Your task to perform on an android device: toggle wifi Image 0: 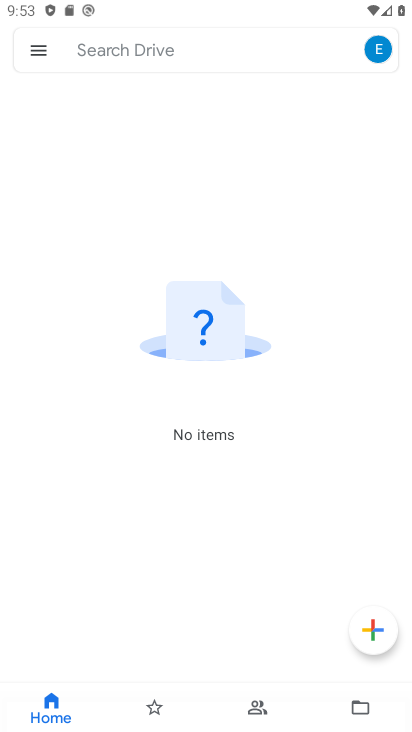
Step 0: press home button
Your task to perform on an android device: toggle wifi Image 1: 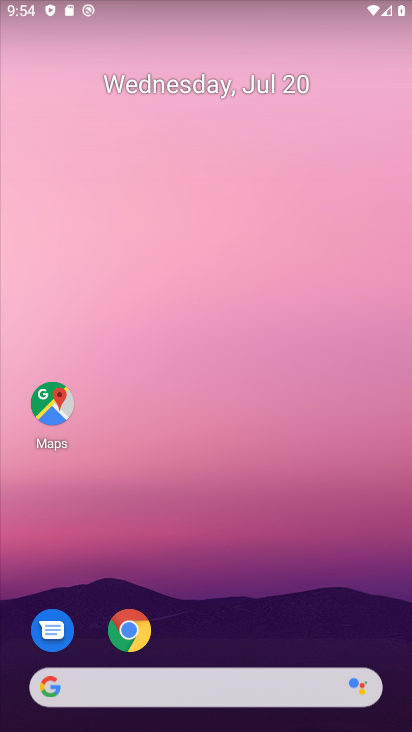
Step 1: drag from (277, 640) to (274, 127)
Your task to perform on an android device: toggle wifi Image 2: 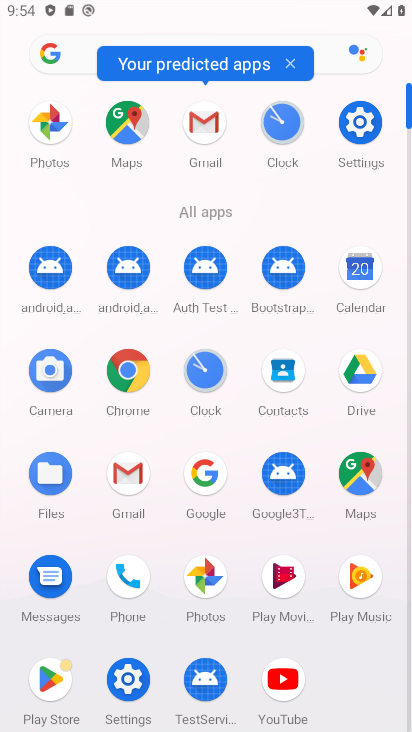
Step 2: click (360, 124)
Your task to perform on an android device: toggle wifi Image 3: 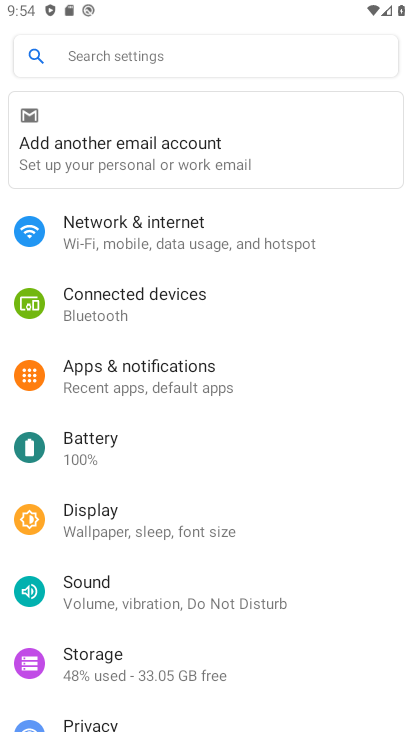
Step 3: click (235, 232)
Your task to perform on an android device: toggle wifi Image 4: 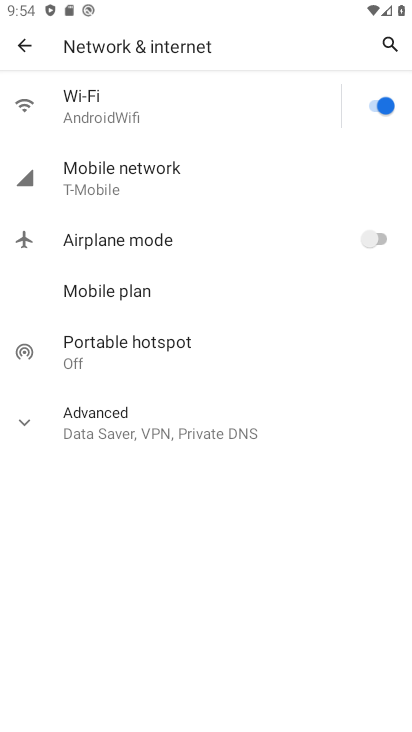
Step 4: click (160, 106)
Your task to perform on an android device: toggle wifi Image 5: 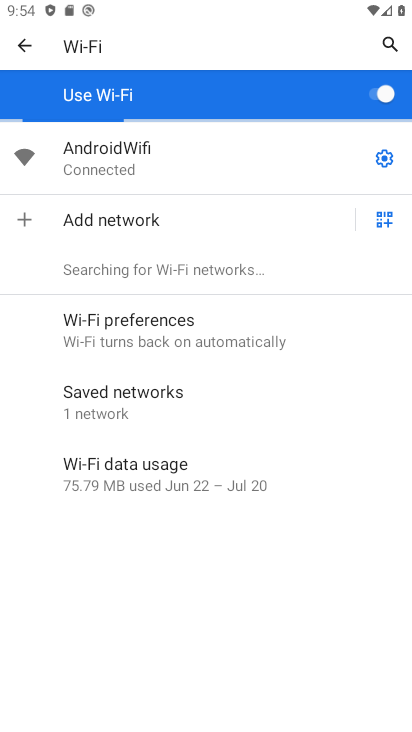
Step 5: click (391, 87)
Your task to perform on an android device: toggle wifi Image 6: 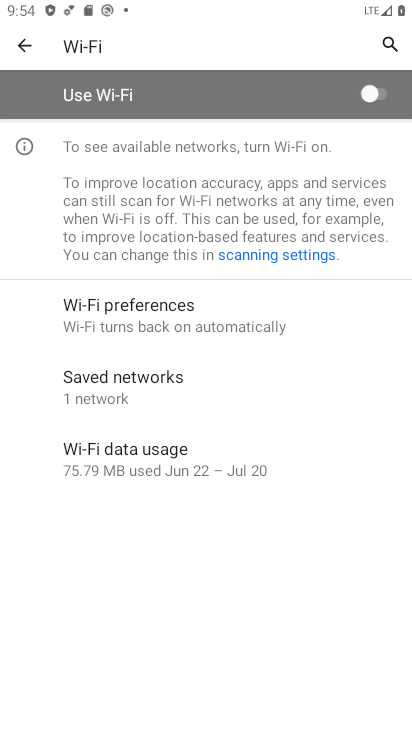
Step 6: task complete